Your task to perform on an android device: Go to Amazon Image 0: 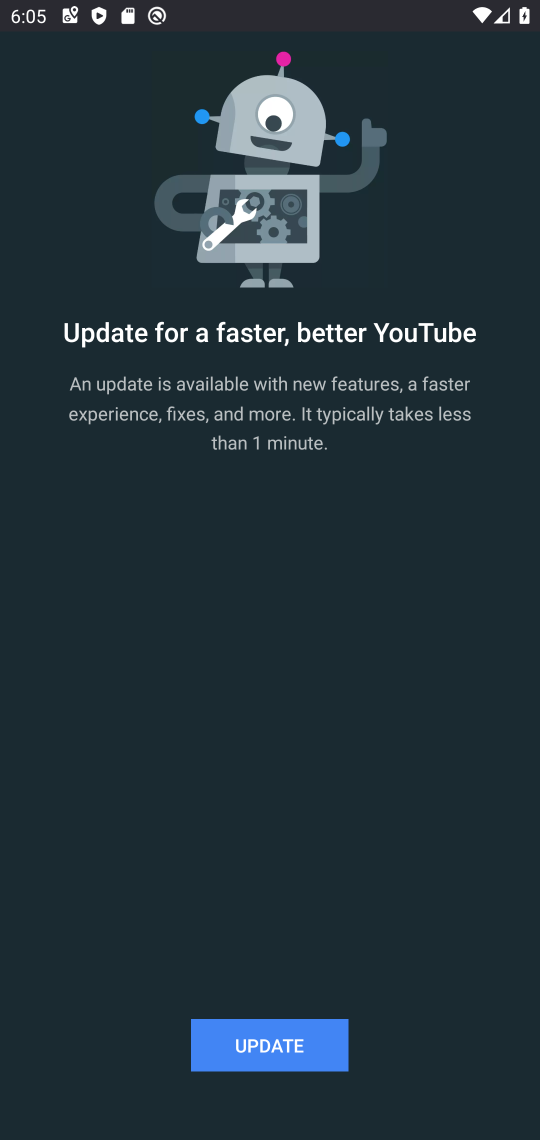
Step 0: press home button
Your task to perform on an android device: Go to Amazon Image 1: 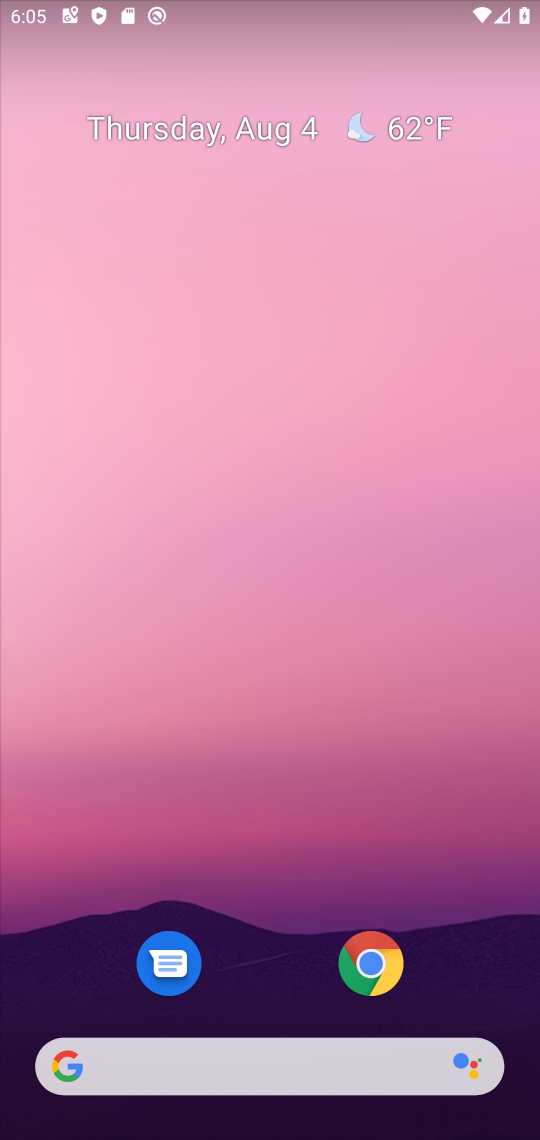
Step 1: click (365, 970)
Your task to perform on an android device: Go to Amazon Image 2: 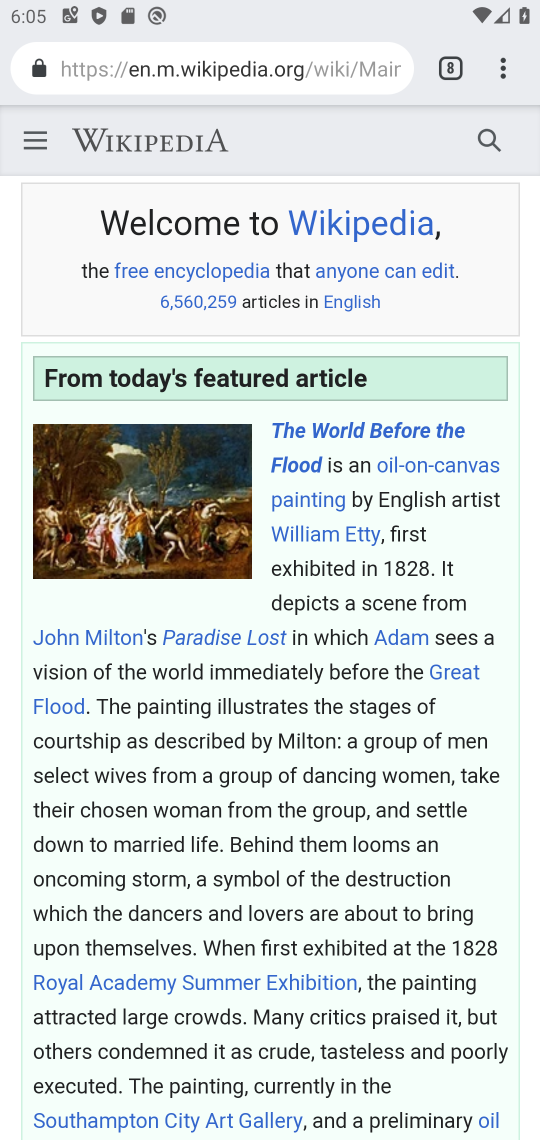
Step 2: click (496, 75)
Your task to perform on an android device: Go to Amazon Image 3: 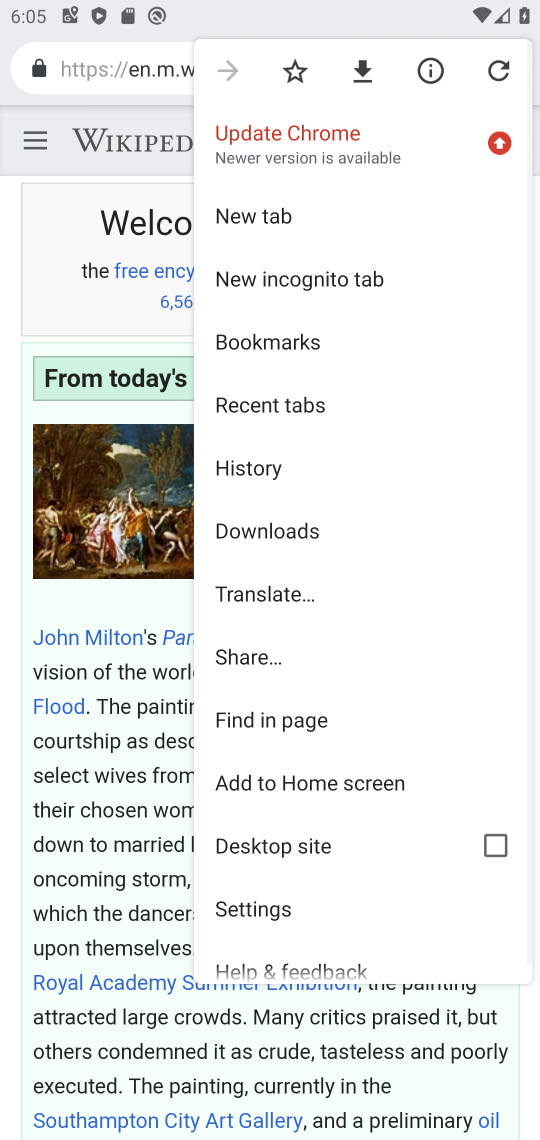
Step 3: click (263, 203)
Your task to perform on an android device: Go to Amazon Image 4: 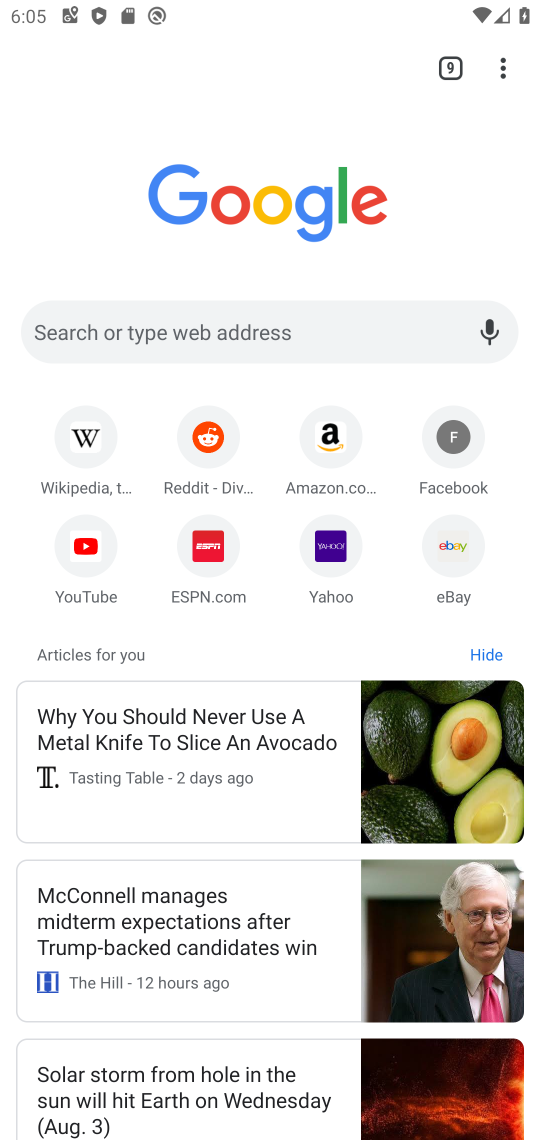
Step 4: click (322, 440)
Your task to perform on an android device: Go to Amazon Image 5: 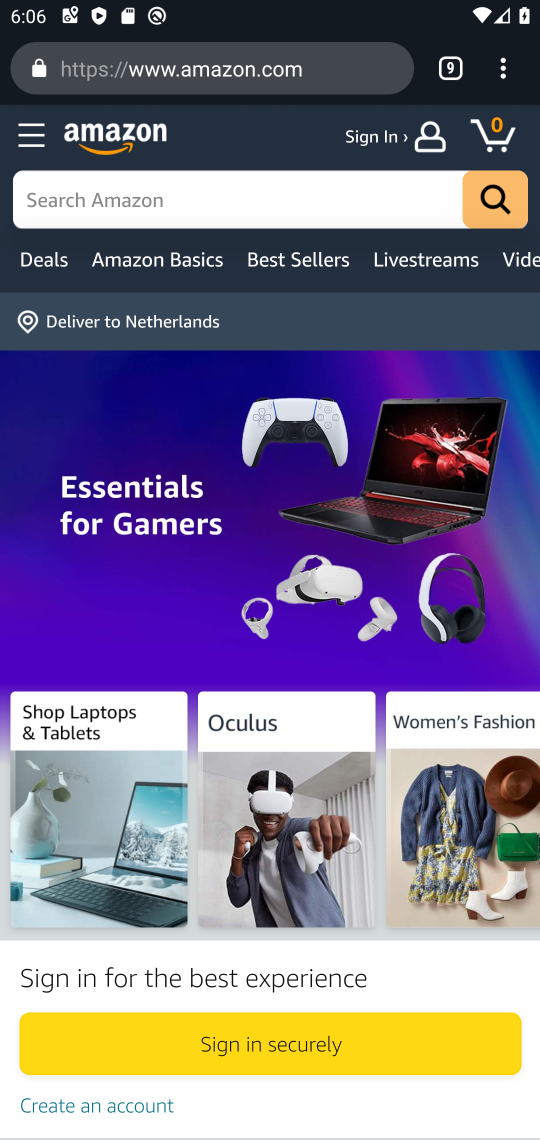
Step 5: task complete